Your task to perform on an android device: turn on javascript in the chrome app Image 0: 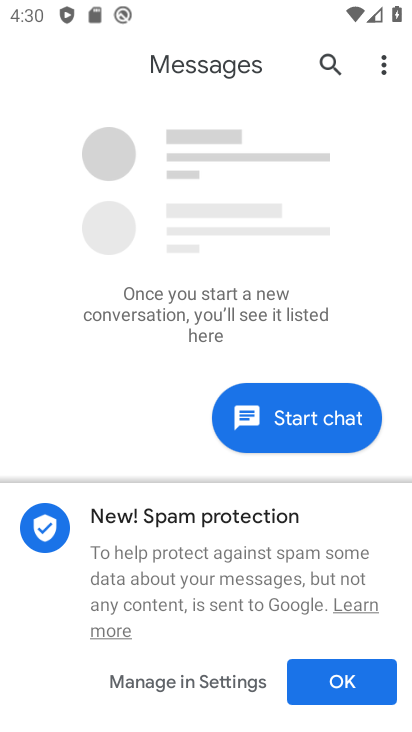
Step 0: press home button
Your task to perform on an android device: turn on javascript in the chrome app Image 1: 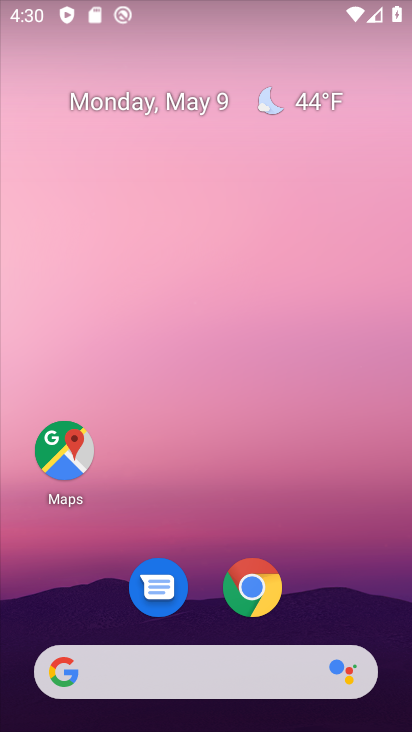
Step 1: drag from (210, 601) to (227, 167)
Your task to perform on an android device: turn on javascript in the chrome app Image 2: 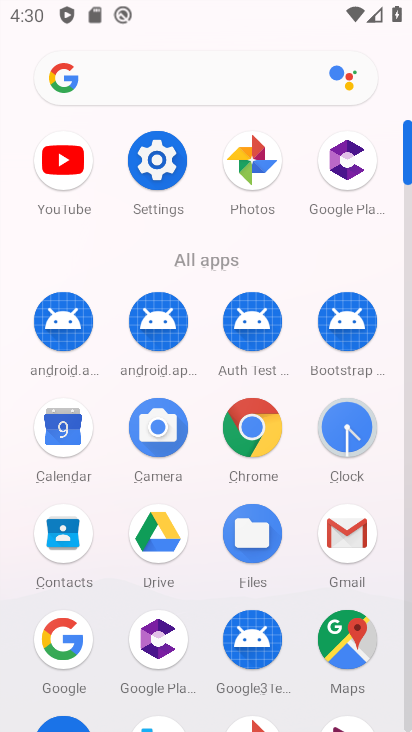
Step 2: click (249, 427)
Your task to perform on an android device: turn on javascript in the chrome app Image 3: 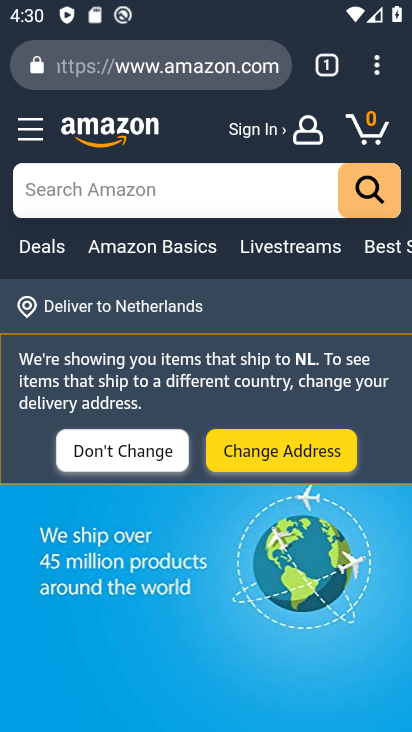
Step 3: click (373, 66)
Your task to perform on an android device: turn on javascript in the chrome app Image 4: 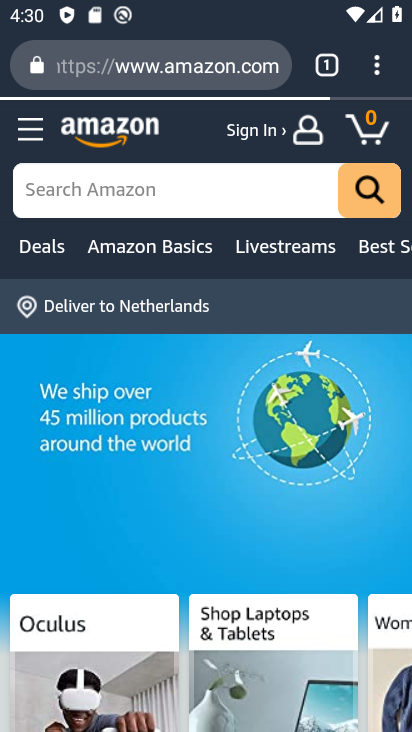
Step 4: click (365, 68)
Your task to perform on an android device: turn on javascript in the chrome app Image 5: 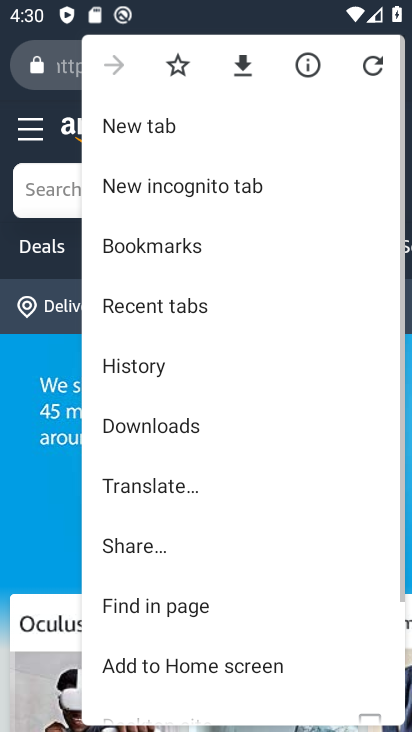
Step 5: drag from (167, 638) to (254, 143)
Your task to perform on an android device: turn on javascript in the chrome app Image 6: 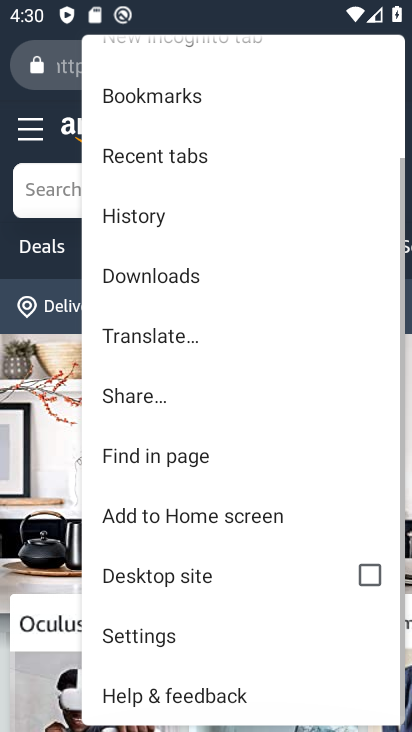
Step 6: click (178, 631)
Your task to perform on an android device: turn on javascript in the chrome app Image 7: 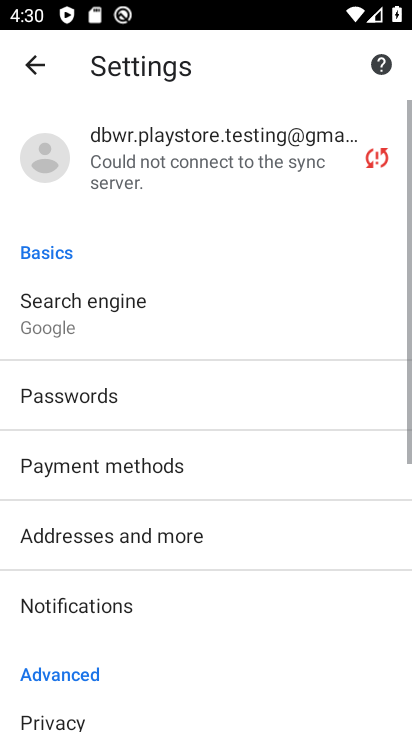
Step 7: drag from (218, 617) to (249, 224)
Your task to perform on an android device: turn on javascript in the chrome app Image 8: 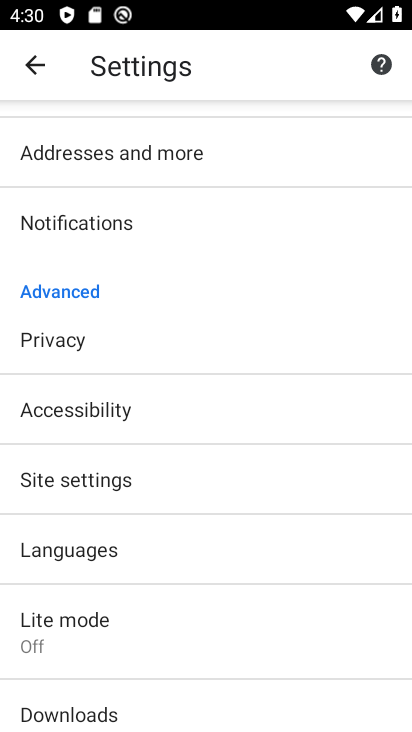
Step 8: click (123, 475)
Your task to perform on an android device: turn on javascript in the chrome app Image 9: 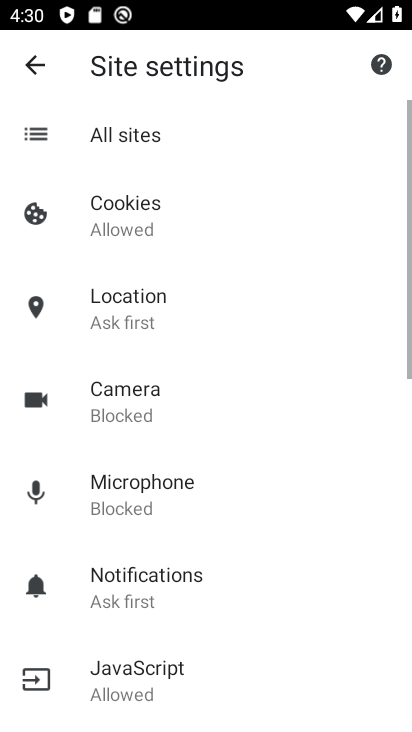
Step 9: click (187, 672)
Your task to perform on an android device: turn on javascript in the chrome app Image 10: 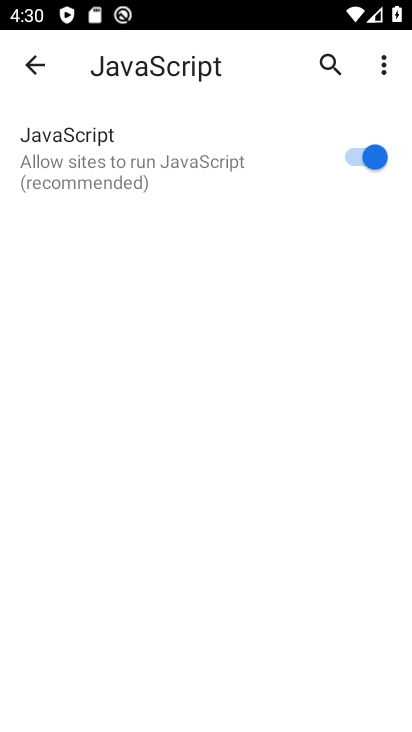
Step 10: task complete